Your task to perform on an android device: add a contact Image 0: 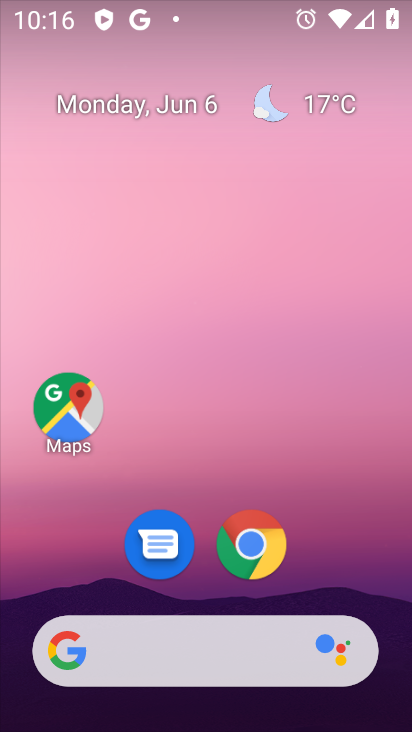
Step 0: drag from (90, 555) to (136, 253)
Your task to perform on an android device: add a contact Image 1: 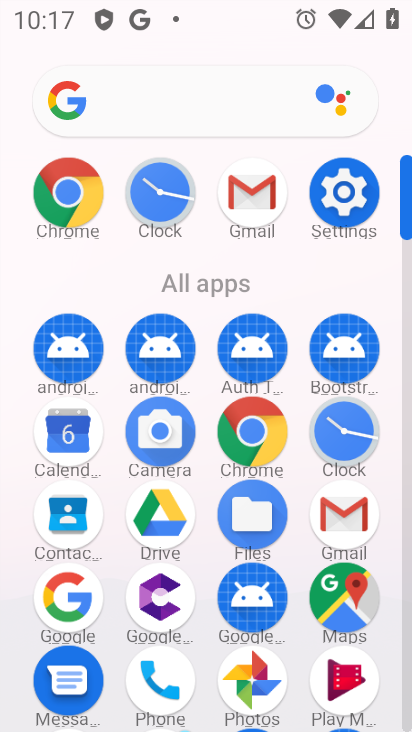
Step 1: click (80, 508)
Your task to perform on an android device: add a contact Image 2: 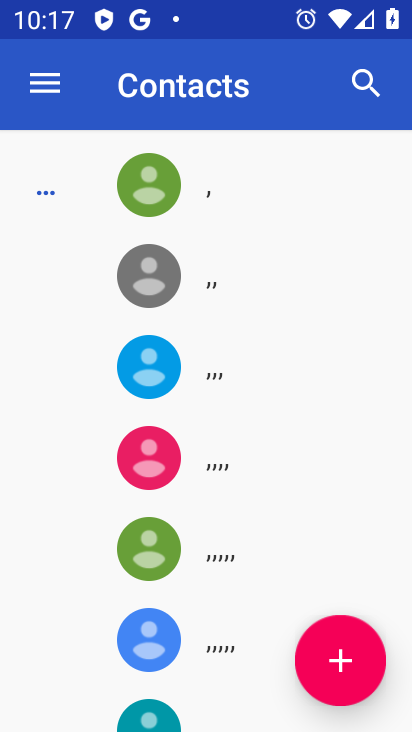
Step 2: click (358, 678)
Your task to perform on an android device: add a contact Image 3: 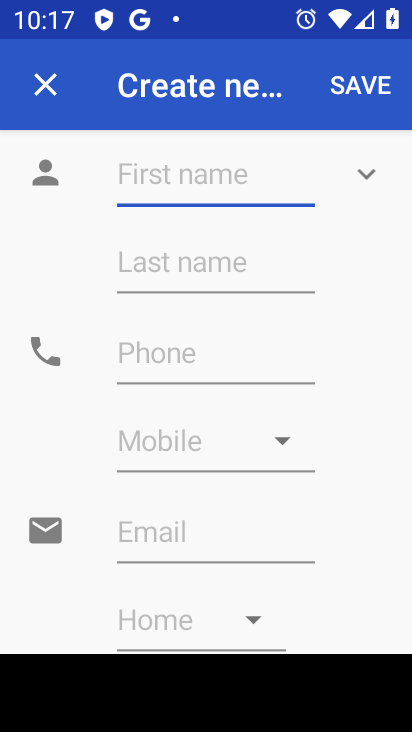
Step 3: type "yuki"
Your task to perform on an android device: add a contact Image 4: 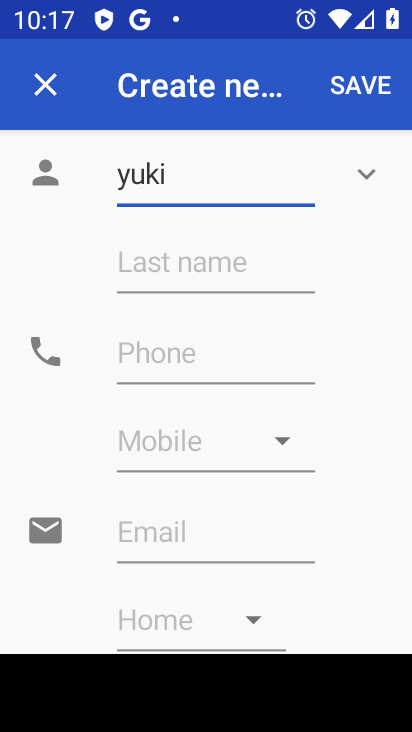
Step 4: click (200, 355)
Your task to perform on an android device: add a contact Image 5: 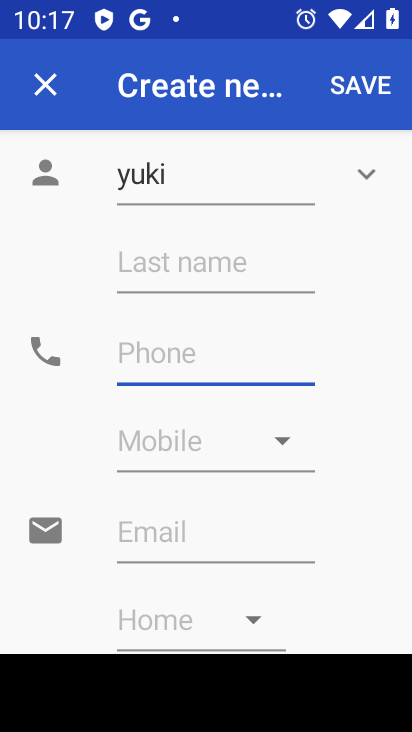
Step 5: type "909098989"
Your task to perform on an android device: add a contact Image 6: 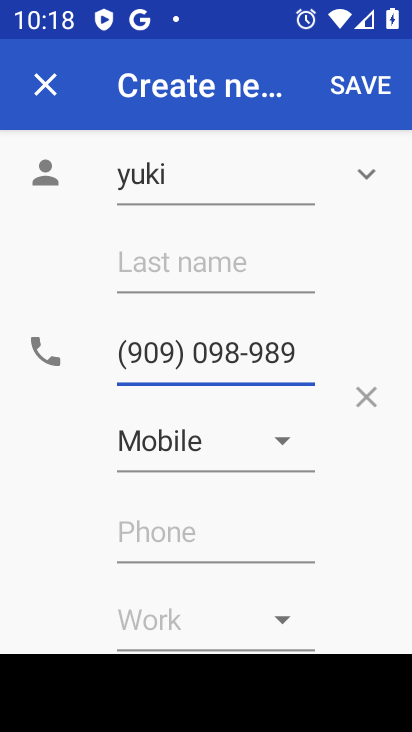
Step 6: click (359, 89)
Your task to perform on an android device: add a contact Image 7: 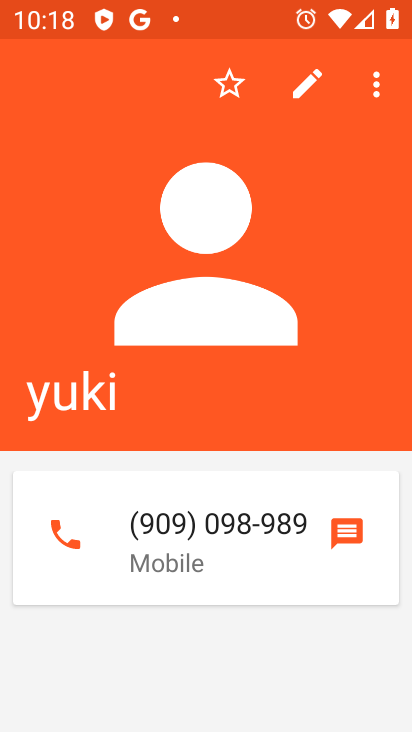
Step 7: task complete